Your task to perform on an android device: add a label to a message in the gmail app Image 0: 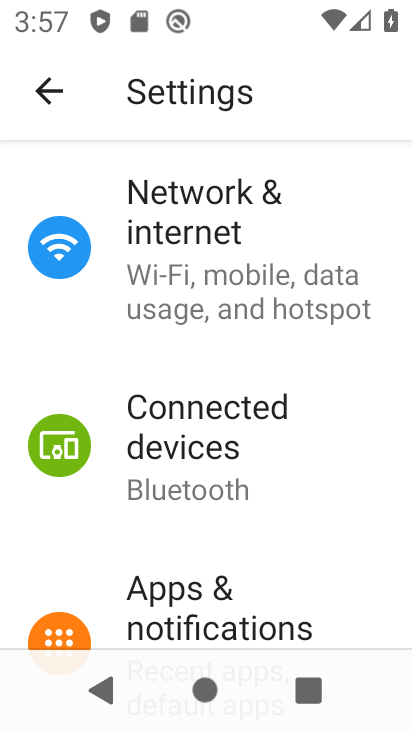
Step 0: press home button
Your task to perform on an android device: add a label to a message in the gmail app Image 1: 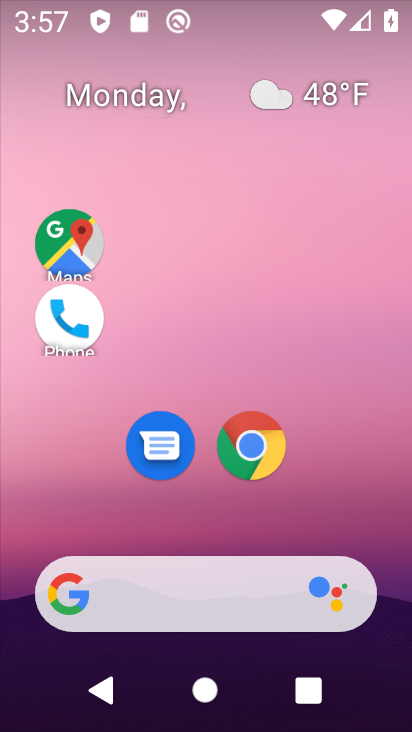
Step 1: drag from (333, 500) to (239, 150)
Your task to perform on an android device: add a label to a message in the gmail app Image 2: 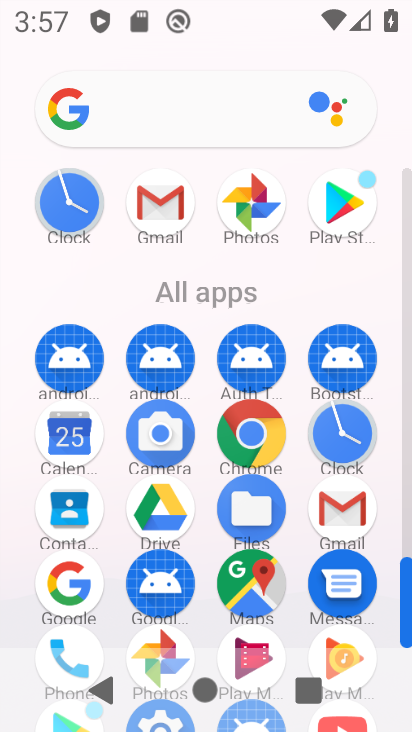
Step 2: click (341, 503)
Your task to perform on an android device: add a label to a message in the gmail app Image 3: 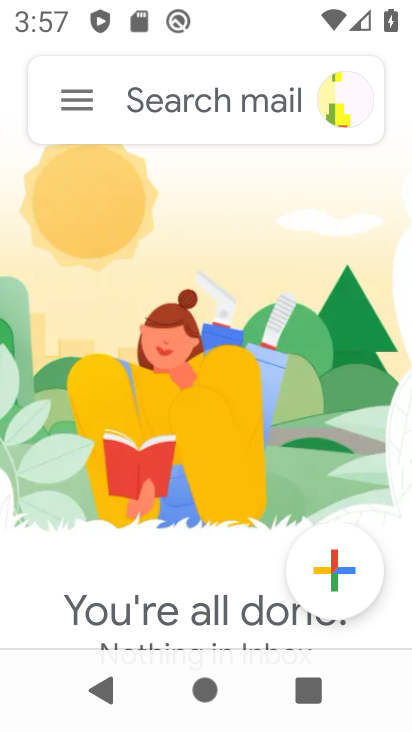
Step 3: click (69, 102)
Your task to perform on an android device: add a label to a message in the gmail app Image 4: 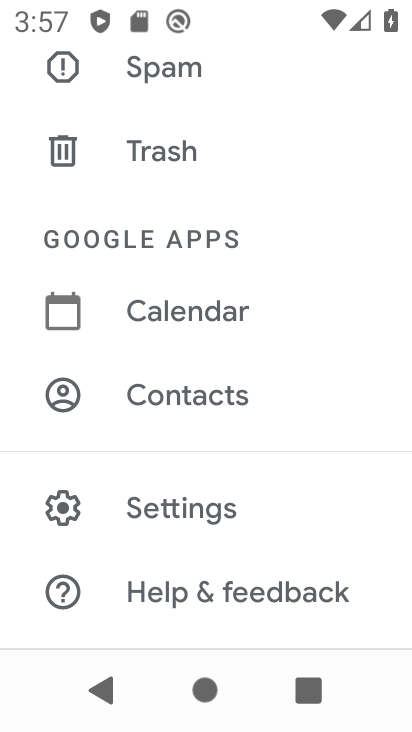
Step 4: drag from (250, 144) to (279, 369)
Your task to perform on an android device: add a label to a message in the gmail app Image 5: 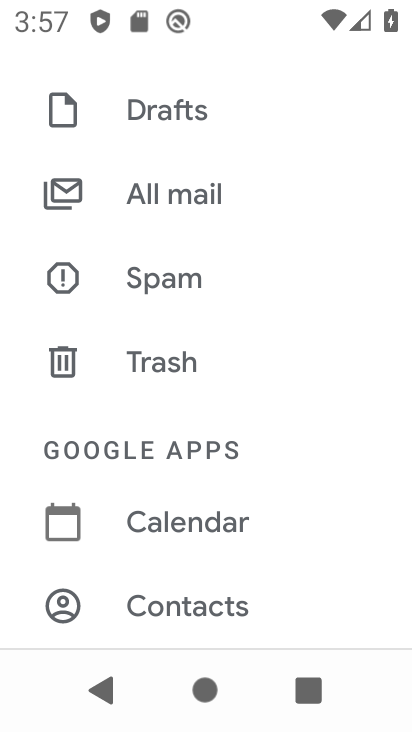
Step 5: click (199, 195)
Your task to perform on an android device: add a label to a message in the gmail app Image 6: 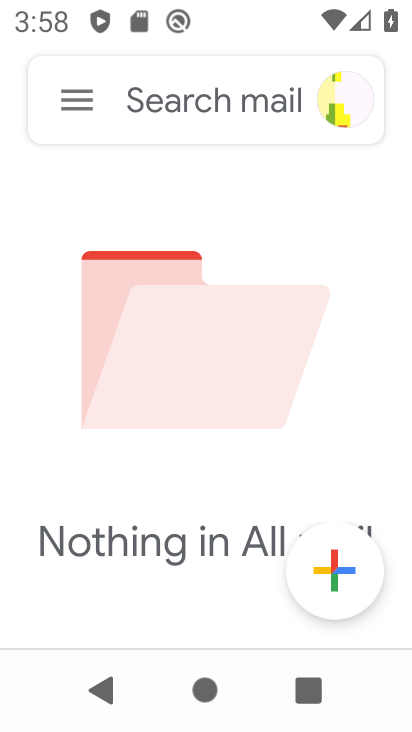
Step 6: task complete